Your task to perform on an android device: Go to Amazon Image 0: 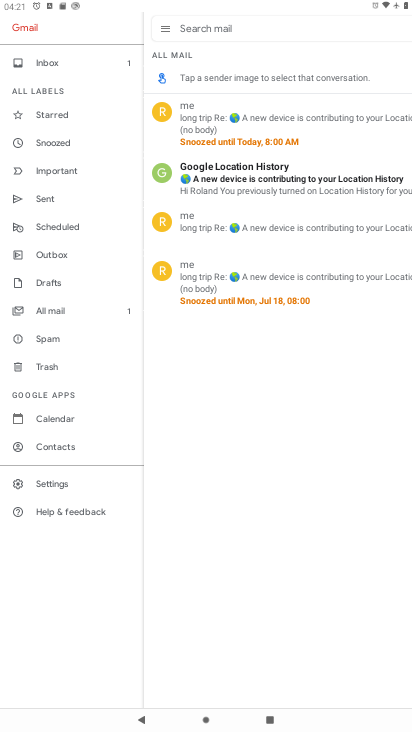
Step 0: press home button
Your task to perform on an android device: Go to Amazon Image 1: 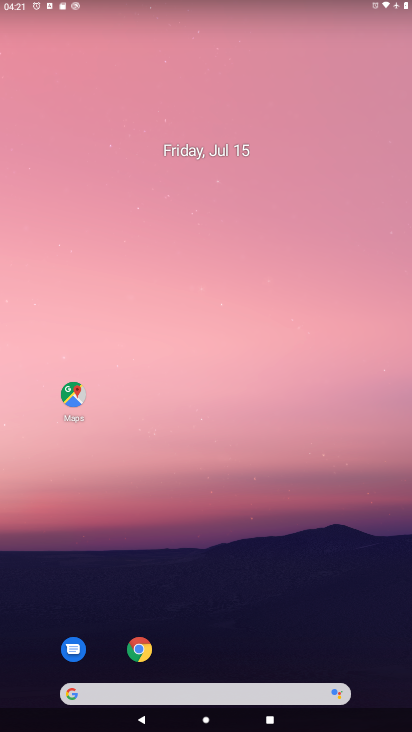
Step 1: click (139, 649)
Your task to perform on an android device: Go to Amazon Image 2: 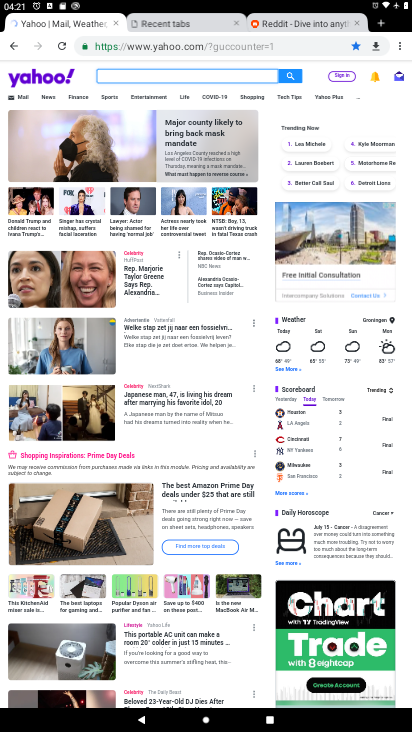
Step 2: click (296, 38)
Your task to perform on an android device: Go to Amazon Image 3: 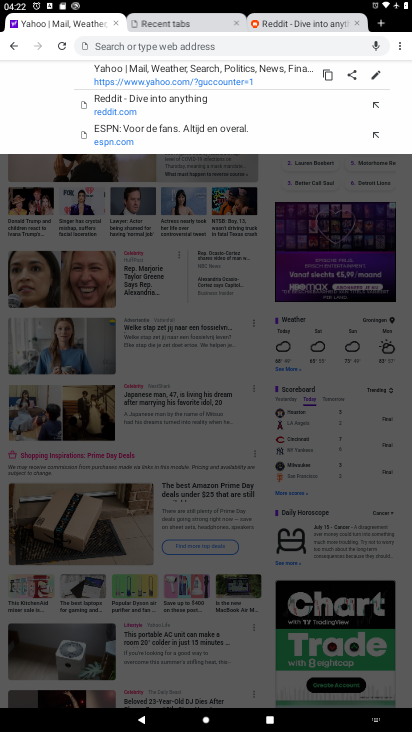
Step 3: type "Amazon"
Your task to perform on an android device: Go to Amazon Image 4: 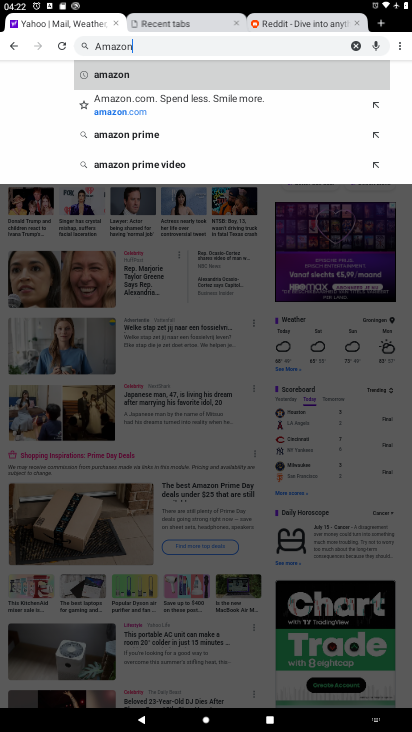
Step 4: click (124, 76)
Your task to perform on an android device: Go to Amazon Image 5: 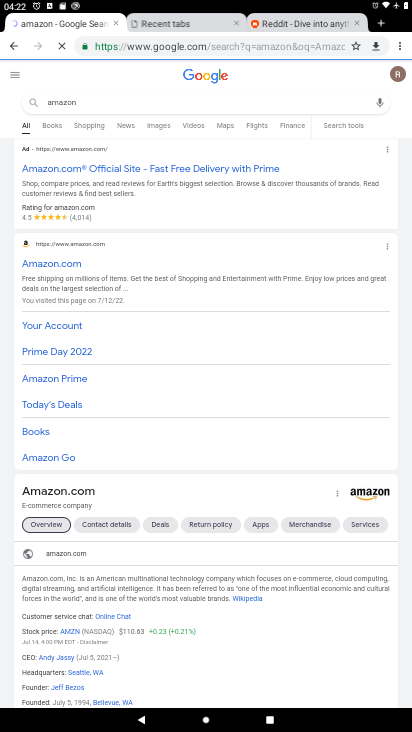
Step 5: click (58, 166)
Your task to perform on an android device: Go to Amazon Image 6: 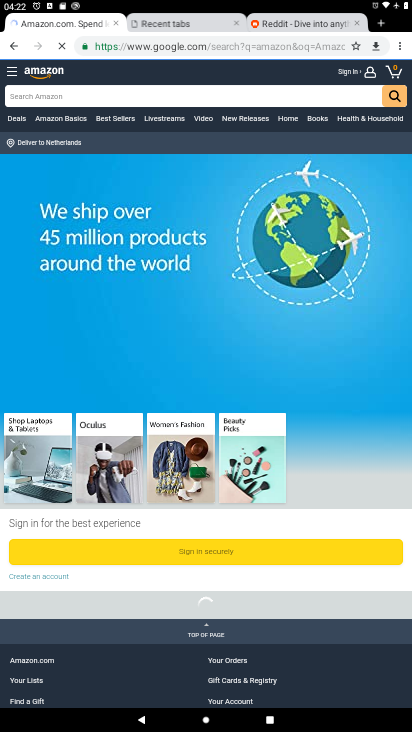
Step 6: task complete